Your task to perform on an android device: find which apps use the phone's location Image 0: 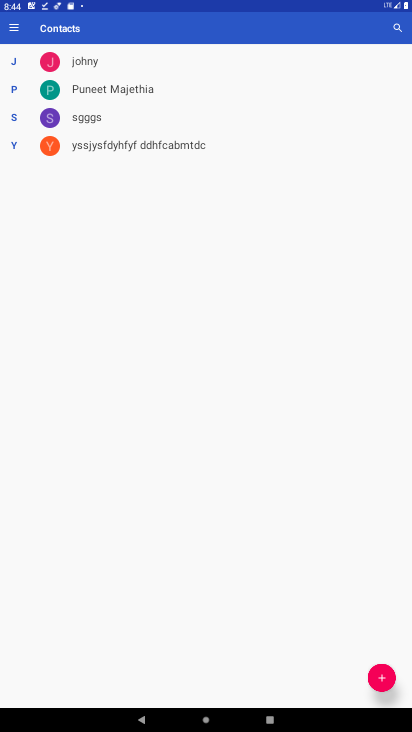
Step 0: press home button
Your task to perform on an android device: find which apps use the phone's location Image 1: 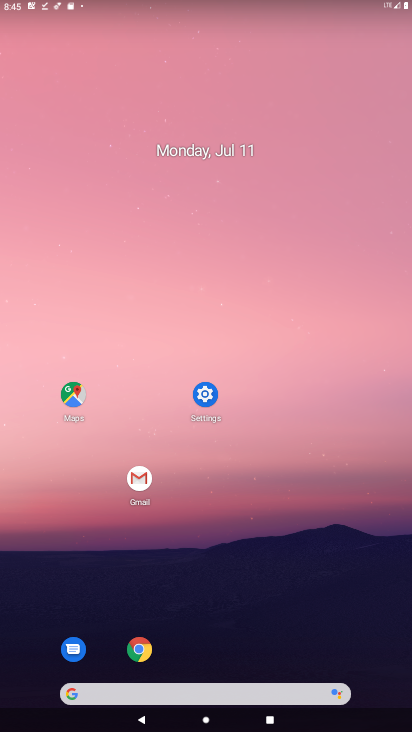
Step 1: click (206, 400)
Your task to perform on an android device: find which apps use the phone's location Image 2: 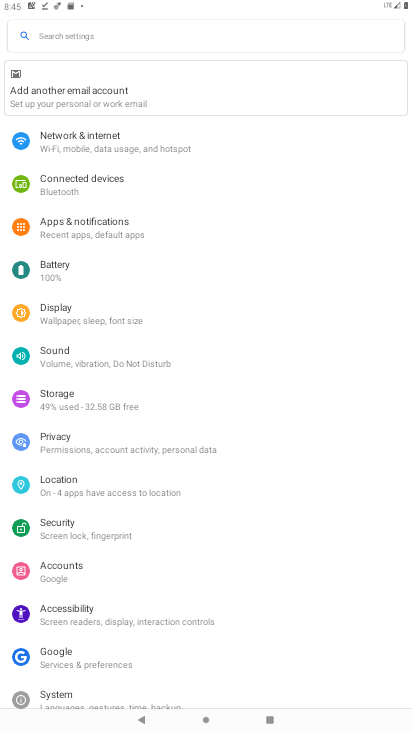
Step 2: click (52, 484)
Your task to perform on an android device: find which apps use the phone's location Image 3: 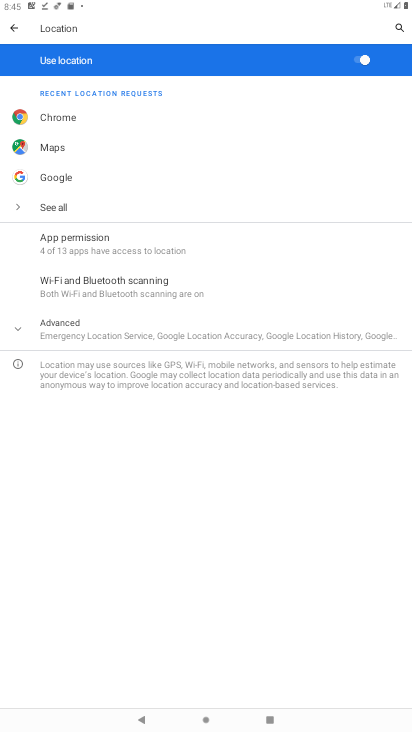
Step 3: click (88, 246)
Your task to perform on an android device: find which apps use the phone's location Image 4: 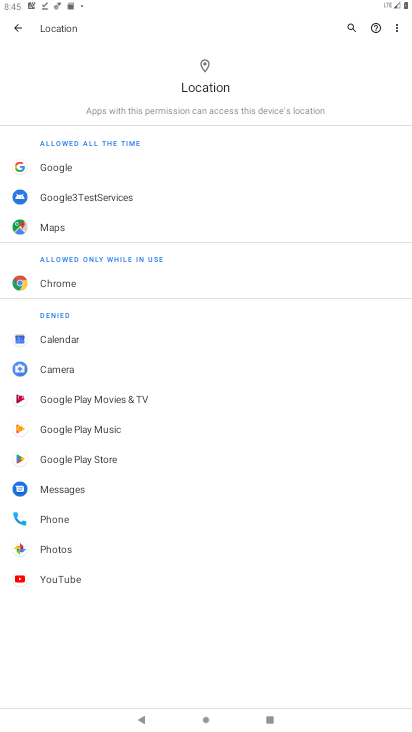
Step 4: task complete